Your task to perform on an android device: refresh tabs in the chrome app Image 0: 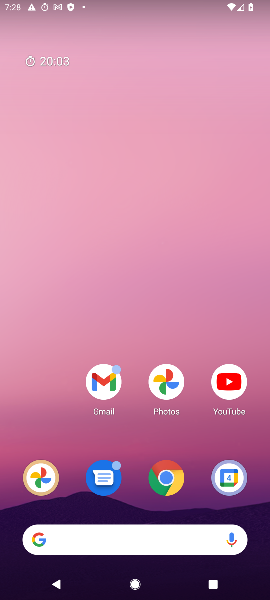
Step 0: click (164, 482)
Your task to perform on an android device: refresh tabs in the chrome app Image 1: 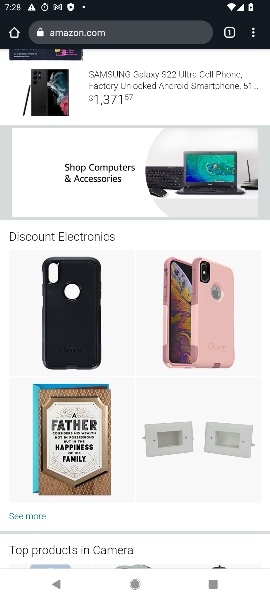
Step 1: click (254, 33)
Your task to perform on an android device: refresh tabs in the chrome app Image 2: 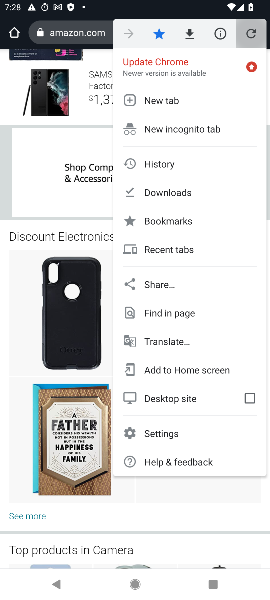
Step 2: click (253, 33)
Your task to perform on an android device: refresh tabs in the chrome app Image 3: 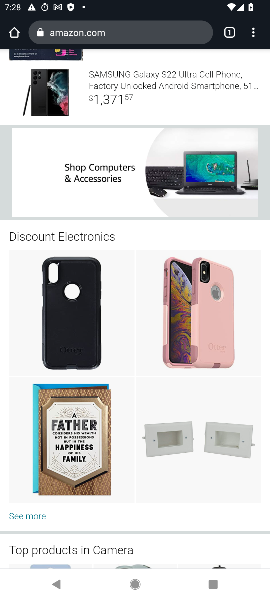
Step 3: task complete